Your task to perform on an android device: Is it going to rain today? Image 0: 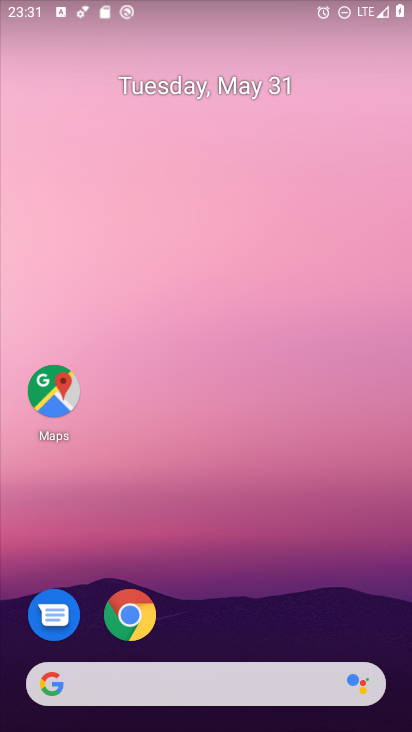
Step 0: drag from (5, 224) to (403, 293)
Your task to perform on an android device: Is it going to rain today? Image 1: 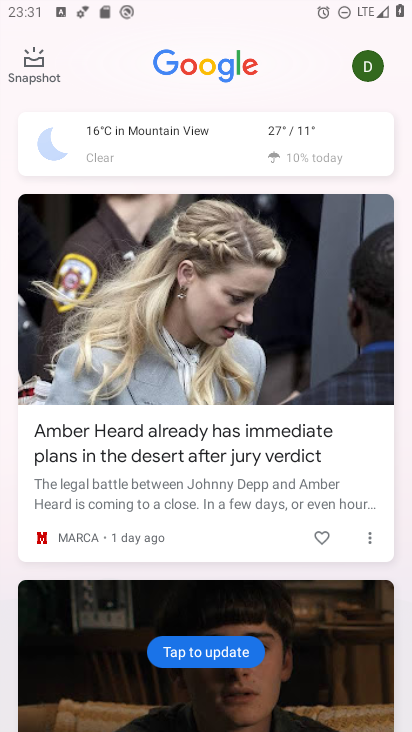
Step 1: click (302, 130)
Your task to perform on an android device: Is it going to rain today? Image 2: 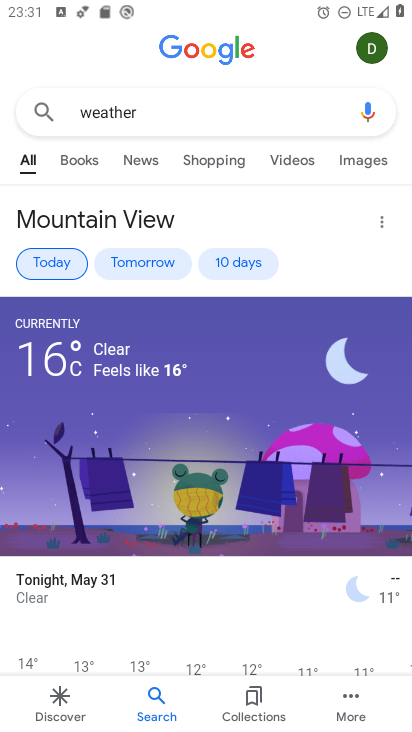
Step 2: task complete